Your task to perform on an android device: toggle show notifications on the lock screen Image 0: 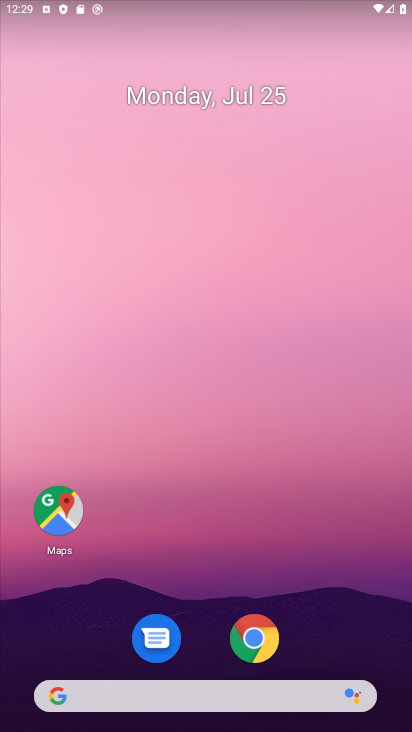
Step 0: drag from (192, 657) to (209, 94)
Your task to perform on an android device: toggle show notifications on the lock screen Image 1: 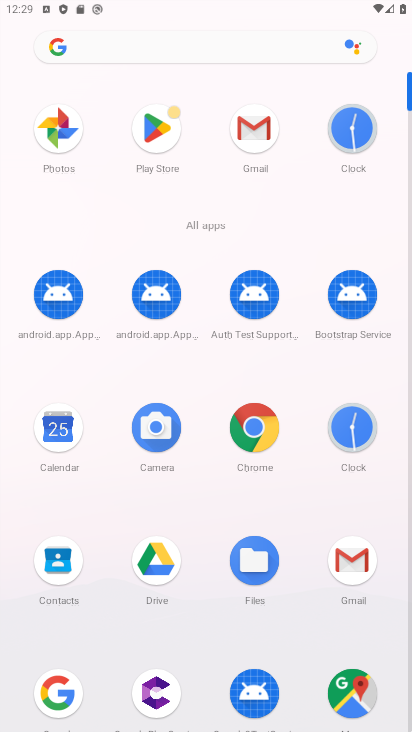
Step 1: drag from (173, 652) to (202, 136)
Your task to perform on an android device: toggle show notifications on the lock screen Image 2: 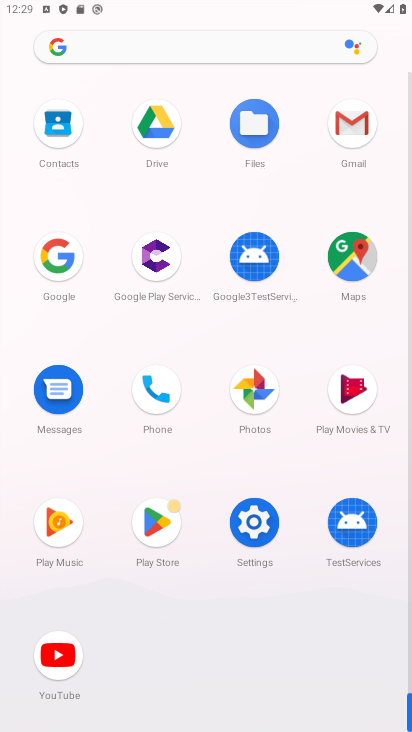
Step 2: click (221, 516)
Your task to perform on an android device: toggle show notifications on the lock screen Image 3: 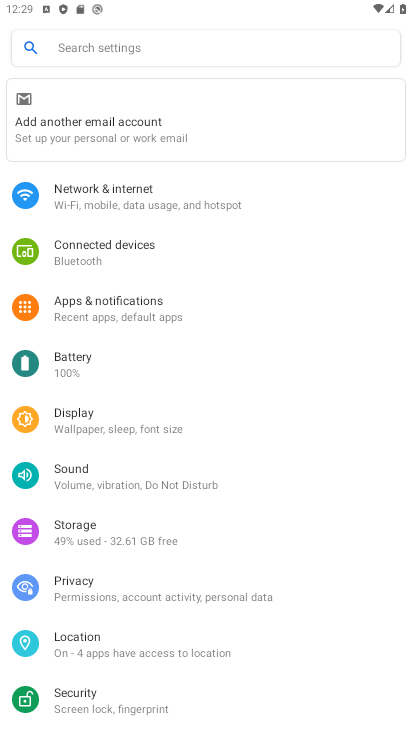
Step 3: click (78, 296)
Your task to perform on an android device: toggle show notifications on the lock screen Image 4: 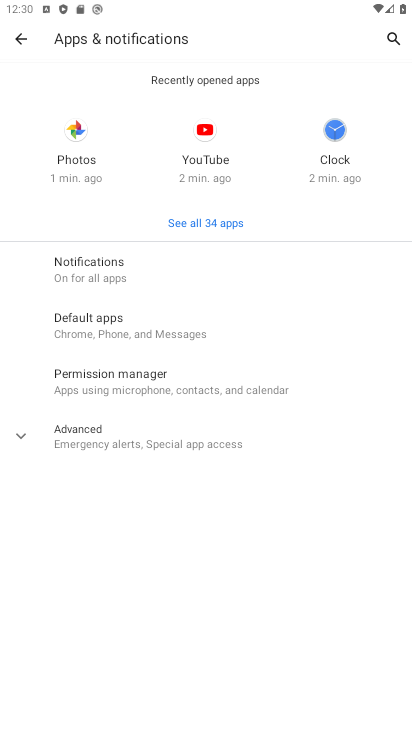
Step 4: click (86, 275)
Your task to perform on an android device: toggle show notifications on the lock screen Image 5: 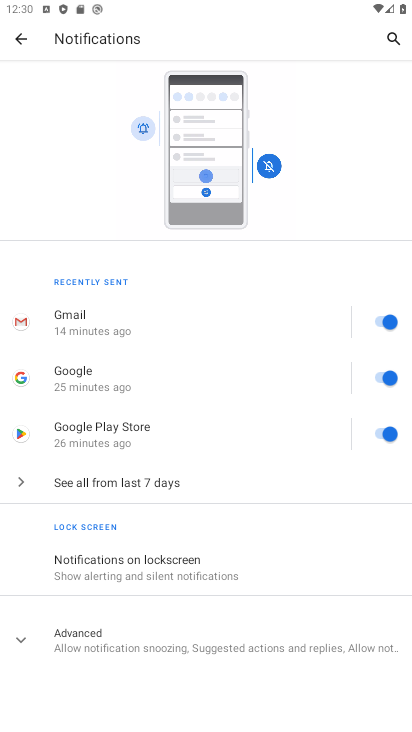
Step 5: click (142, 658)
Your task to perform on an android device: toggle show notifications on the lock screen Image 6: 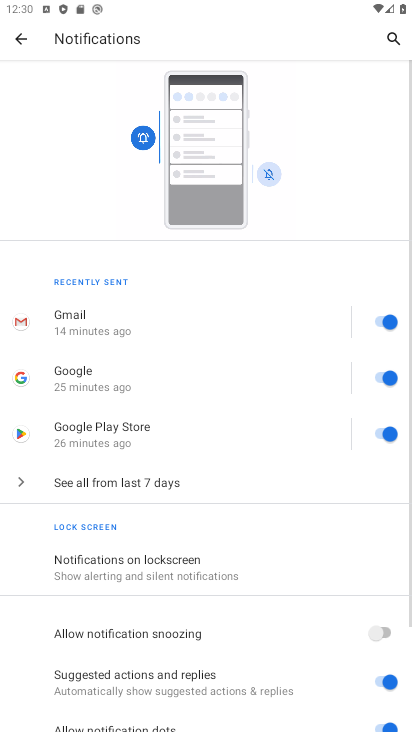
Step 6: drag from (142, 658) to (173, 61)
Your task to perform on an android device: toggle show notifications on the lock screen Image 7: 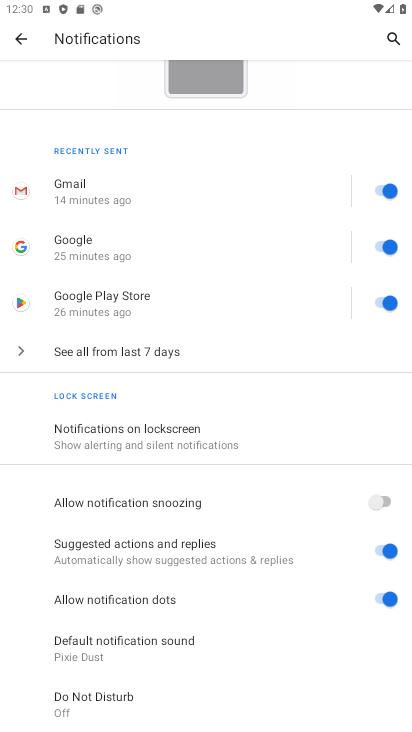
Step 7: click (141, 436)
Your task to perform on an android device: toggle show notifications on the lock screen Image 8: 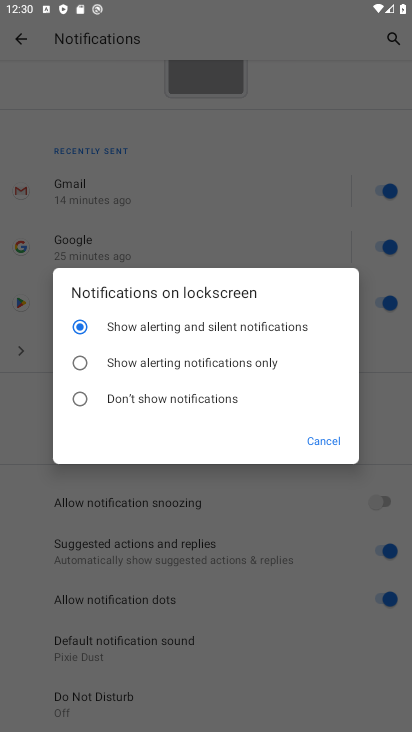
Step 8: click (152, 354)
Your task to perform on an android device: toggle show notifications on the lock screen Image 9: 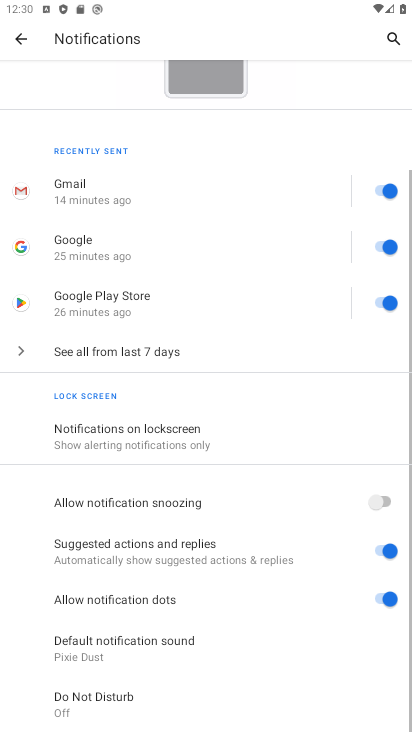
Step 9: task complete